Your task to perform on an android device: see sites visited before in the chrome app Image 0: 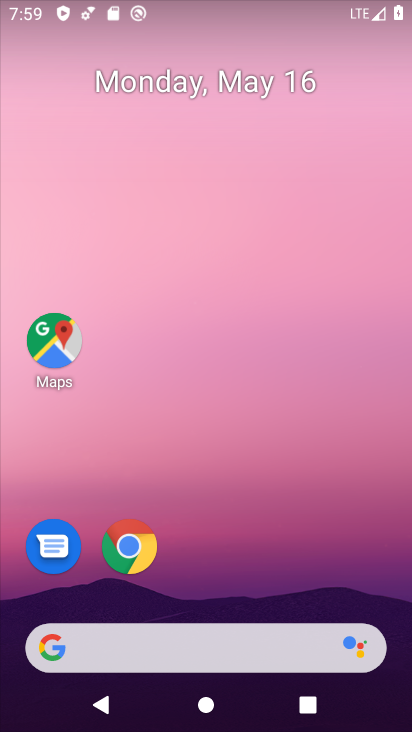
Step 0: click (145, 560)
Your task to perform on an android device: see sites visited before in the chrome app Image 1: 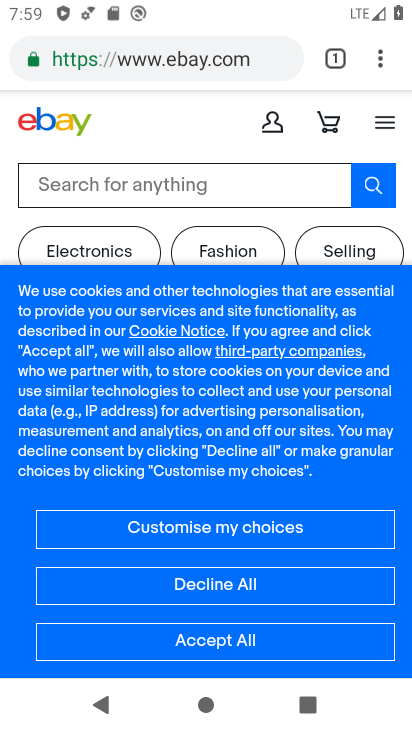
Step 1: click (385, 59)
Your task to perform on an android device: see sites visited before in the chrome app Image 2: 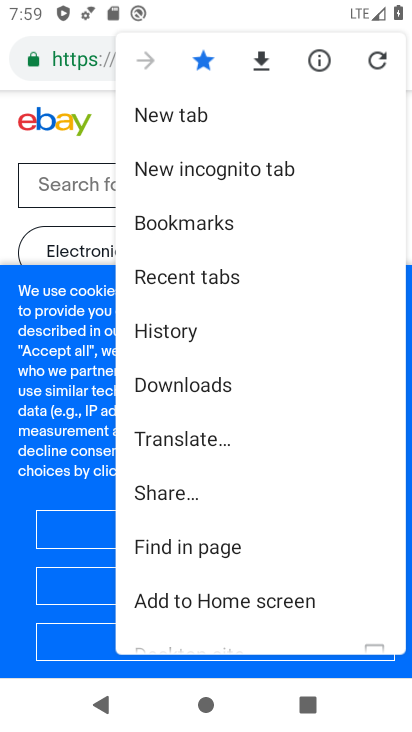
Step 2: drag from (225, 540) to (247, 422)
Your task to perform on an android device: see sites visited before in the chrome app Image 3: 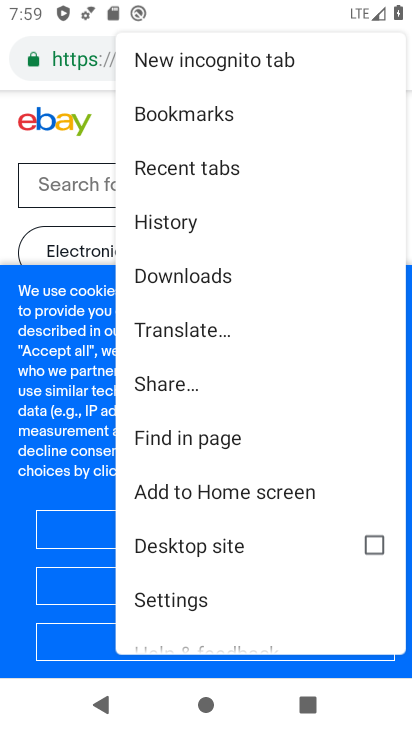
Step 3: click (185, 169)
Your task to perform on an android device: see sites visited before in the chrome app Image 4: 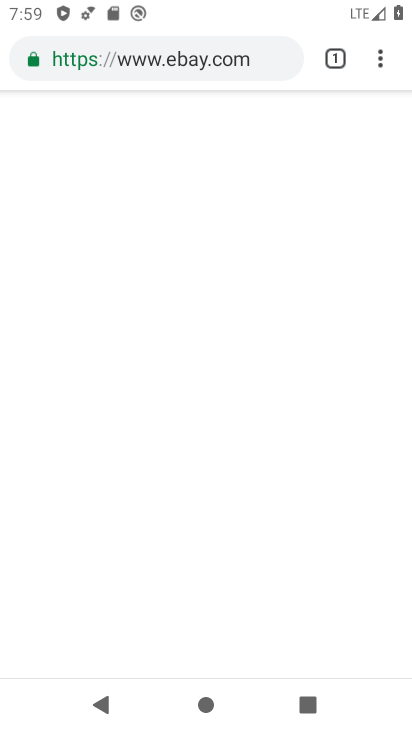
Step 4: task complete